Your task to perform on an android device: Go to location settings Image 0: 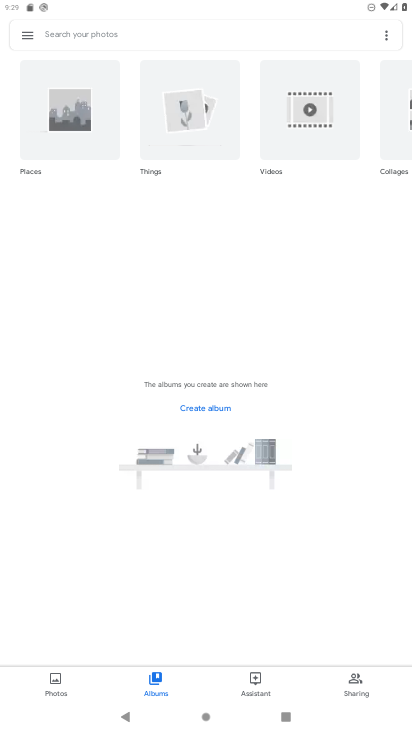
Step 0: press home button
Your task to perform on an android device: Go to location settings Image 1: 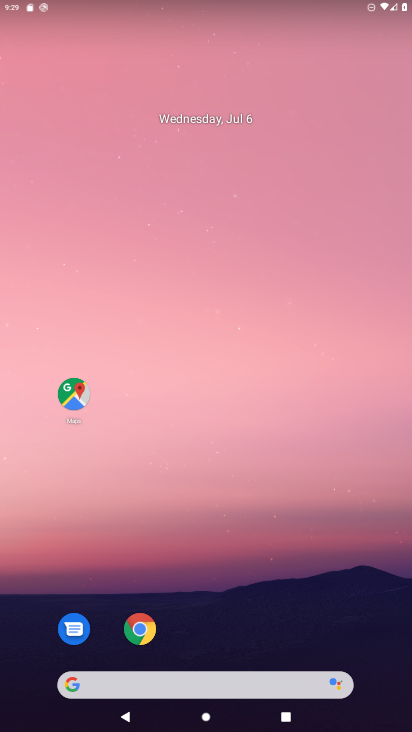
Step 1: drag from (310, 613) to (323, 37)
Your task to perform on an android device: Go to location settings Image 2: 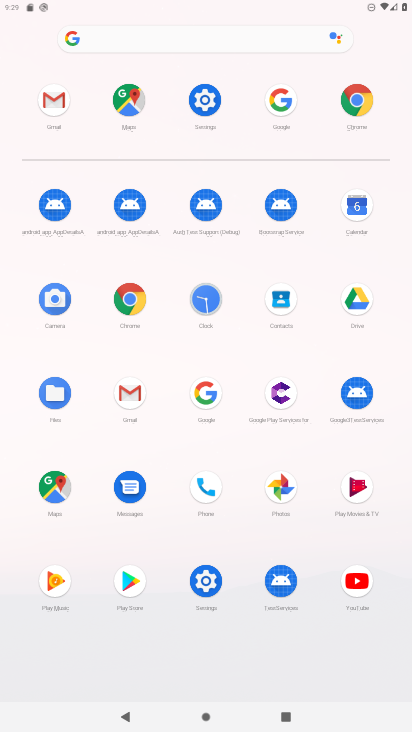
Step 2: click (213, 101)
Your task to perform on an android device: Go to location settings Image 3: 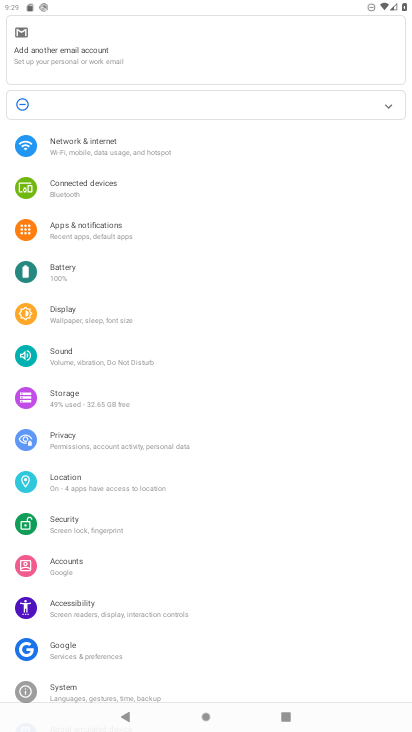
Step 3: click (101, 488)
Your task to perform on an android device: Go to location settings Image 4: 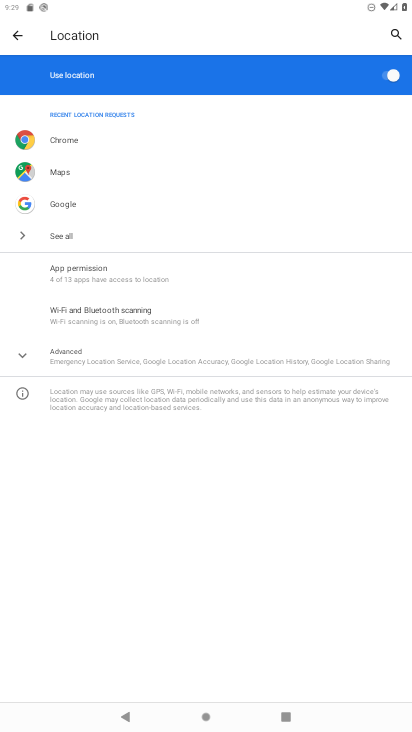
Step 4: task complete